Your task to perform on an android device: turn on translation in the chrome app Image 0: 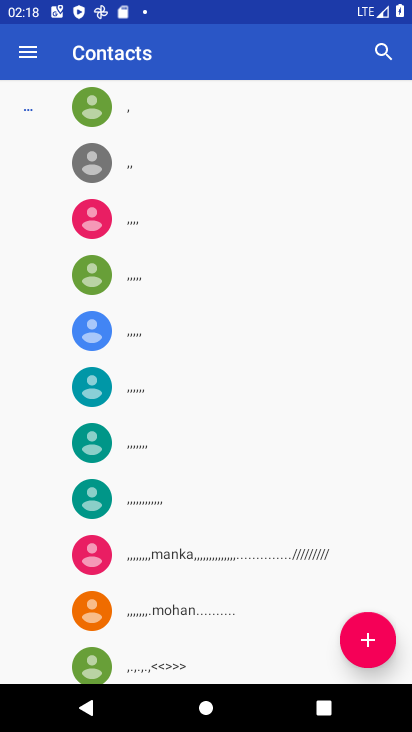
Step 0: press home button
Your task to perform on an android device: turn on translation in the chrome app Image 1: 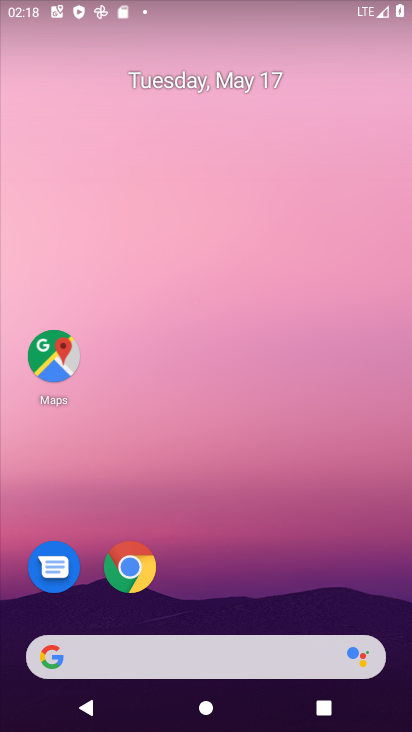
Step 1: click (131, 567)
Your task to perform on an android device: turn on translation in the chrome app Image 2: 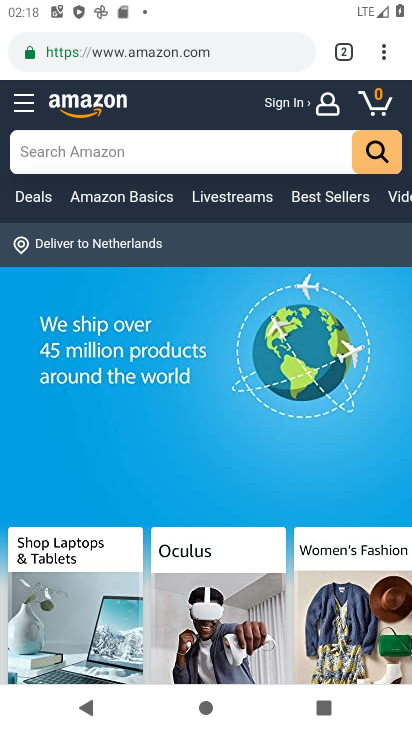
Step 2: click (382, 52)
Your task to perform on an android device: turn on translation in the chrome app Image 3: 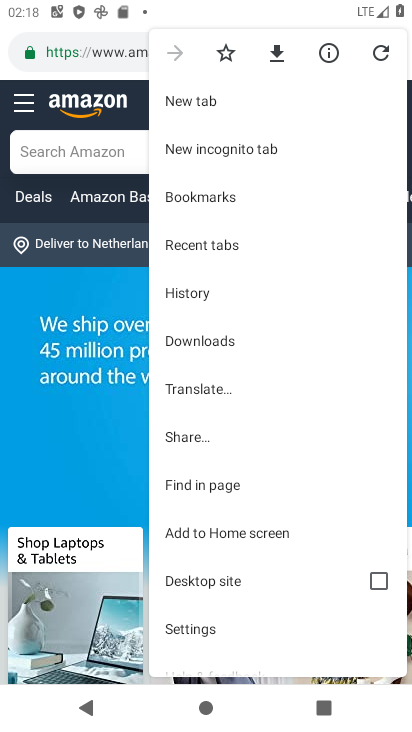
Step 3: click (190, 629)
Your task to perform on an android device: turn on translation in the chrome app Image 4: 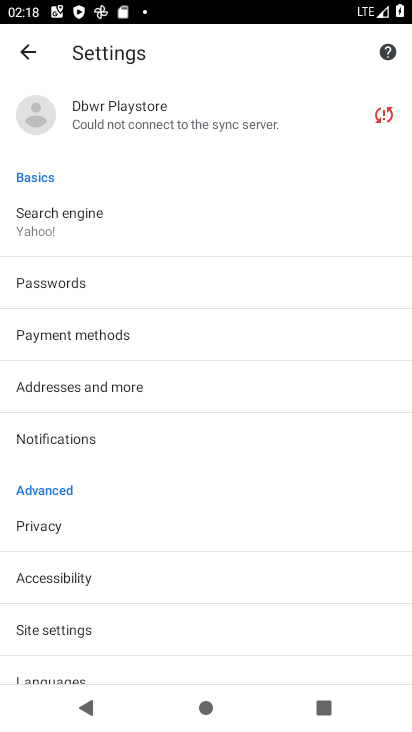
Step 4: drag from (173, 617) to (185, 344)
Your task to perform on an android device: turn on translation in the chrome app Image 5: 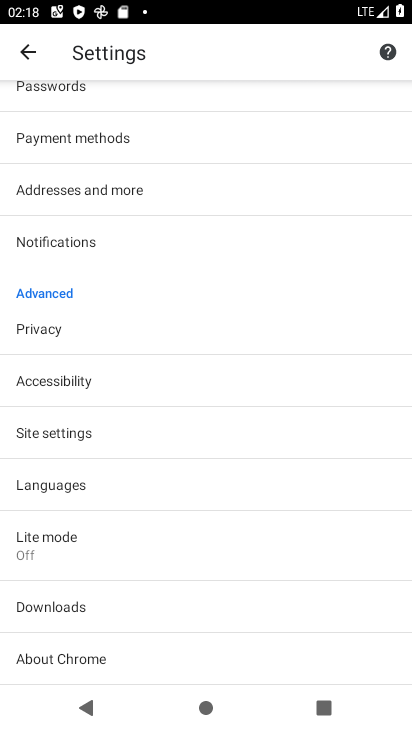
Step 5: click (59, 486)
Your task to perform on an android device: turn on translation in the chrome app Image 6: 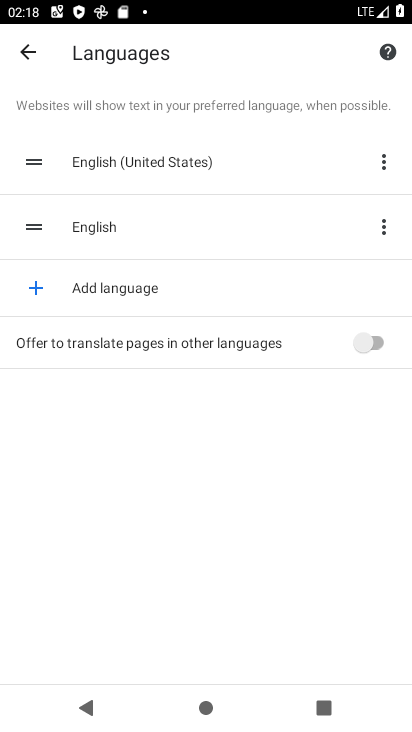
Step 6: click (377, 337)
Your task to perform on an android device: turn on translation in the chrome app Image 7: 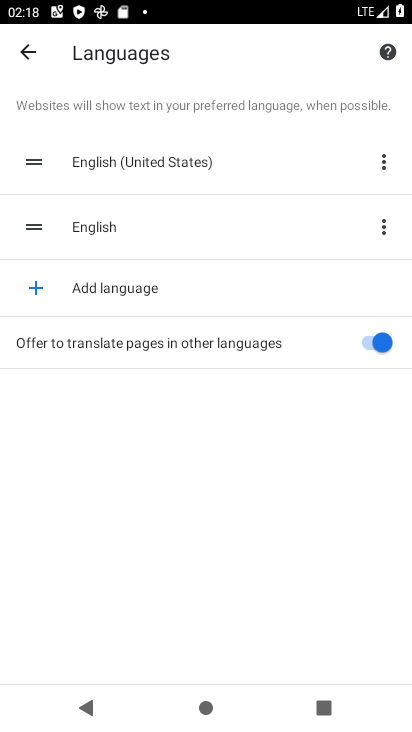
Step 7: task complete